Your task to perform on an android device: add a label to a message in the gmail app Image 0: 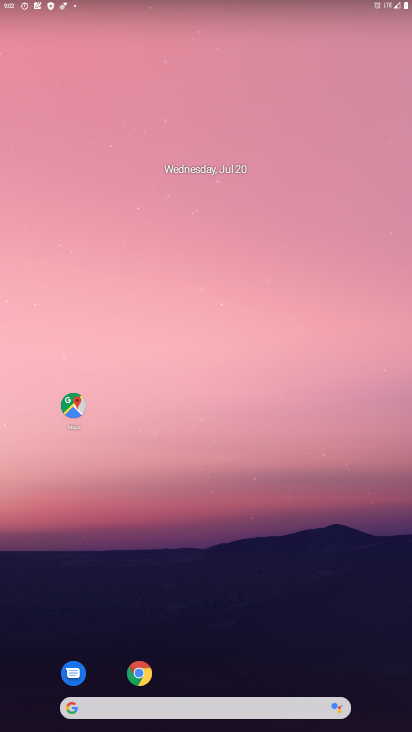
Step 0: drag from (185, 679) to (134, 95)
Your task to perform on an android device: add a label to a message in the gmail app Image 1: 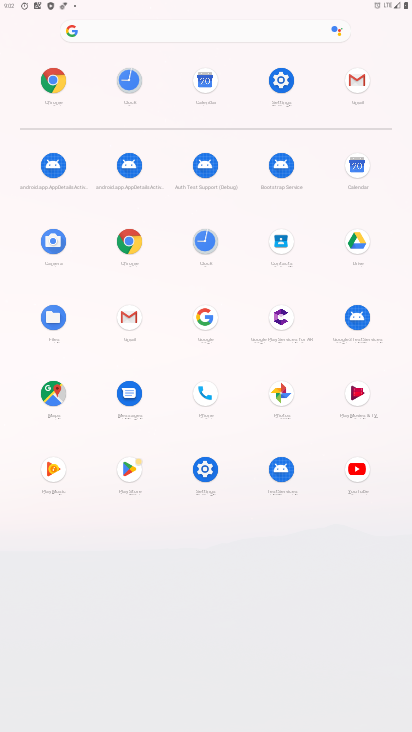
Step 1: click (125, 321)
Your task to perform on an android device: add a label to a message in the gmail app Image 2: 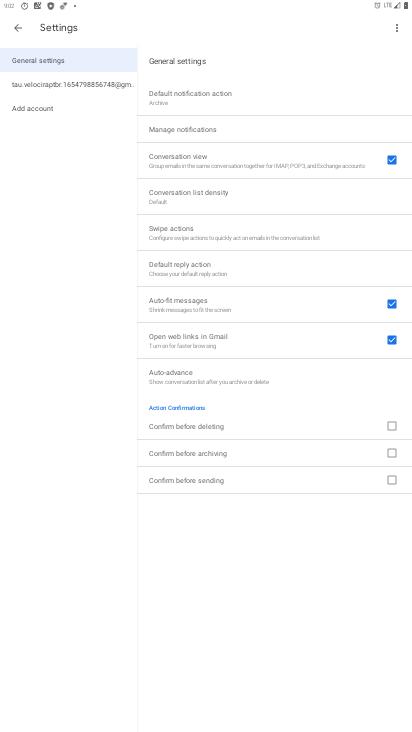
Step 2: press back button
Your task to perform on an android device: add a label to a message in the gmail app Image 3: 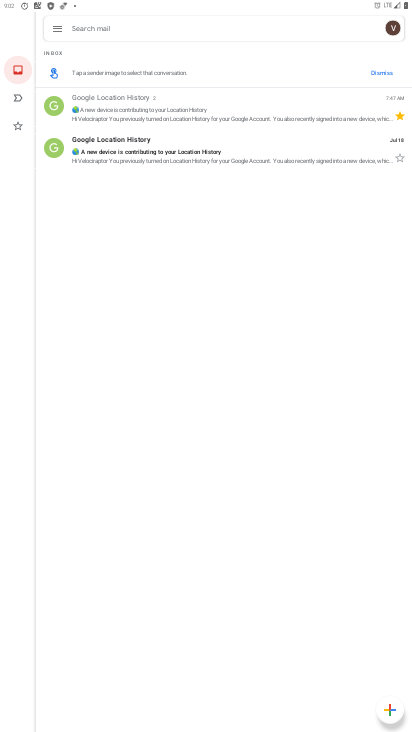
Step 3: click (178, 106)
Your task to perform on an android device: add a label to a message in the gmail app Image 4: 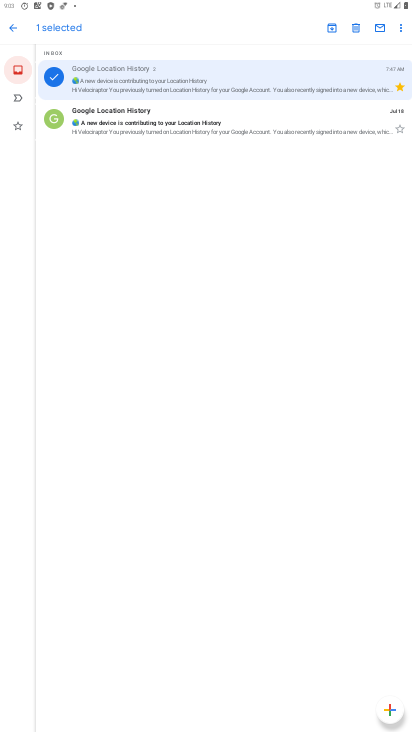
Step 4: click (400, 22)
Your task to perform on an android device: add a label to a message in the gmail app Image 5: 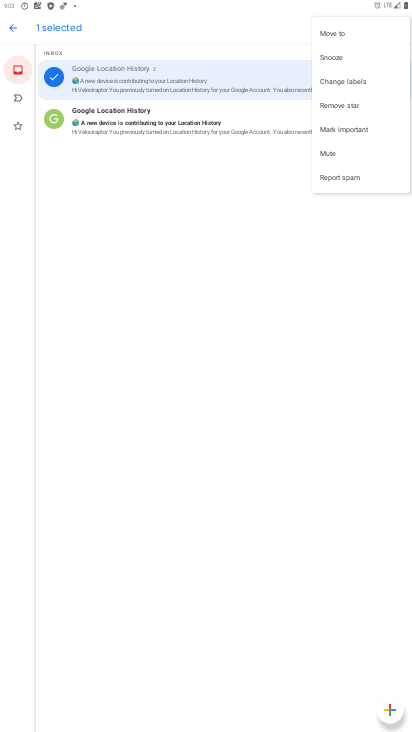
Step 5: click (351, 84)
Your task to perform on an android device: add a label to a message in the gmail app Image 6: 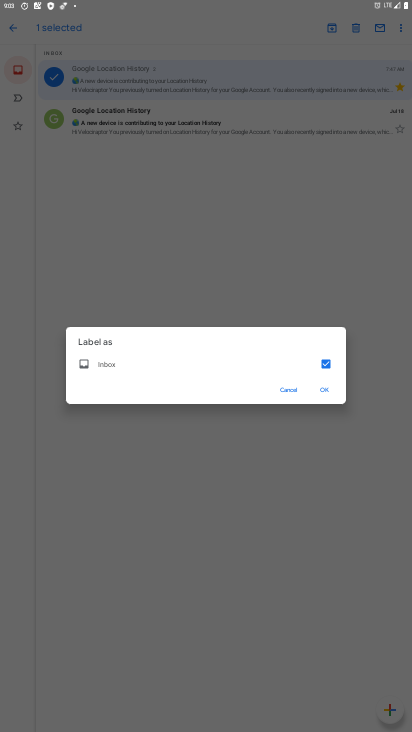
Step 6: click (324, 367)
Your task to perform on an android device: add a label to a message in the gmail app Image 7: 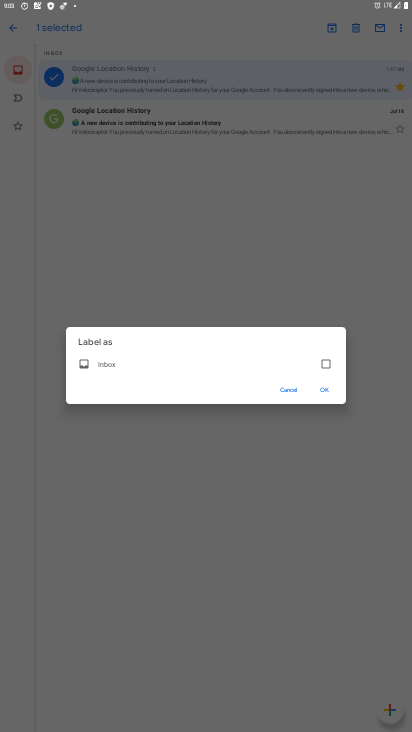
Step 7: click (327, 393)
Your task to perform on an android device: add a label to a message in the gmail app Image 8: 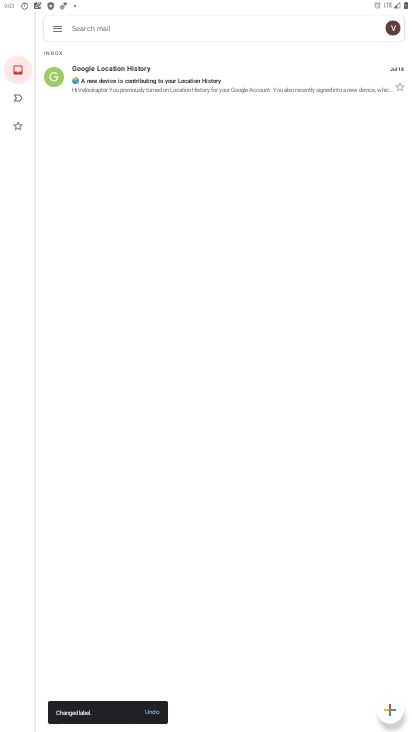
Step 8: task complete